Your task to perform on an android device: turn on location history Image 0: 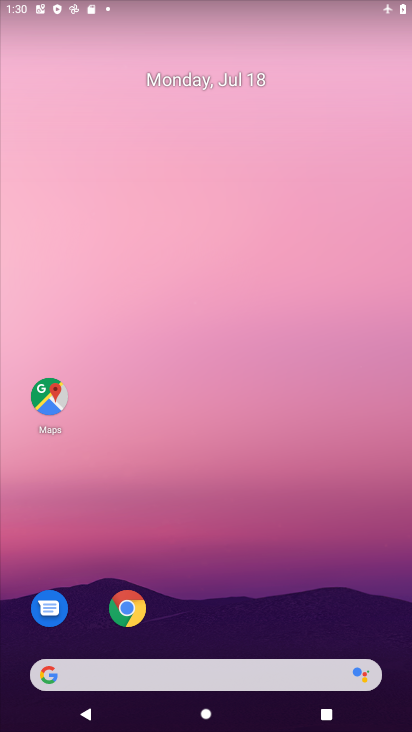
Step 0: drag from (347, 592) to (192, 47)
Your task to perform on an android device: turn on location history Image 1: 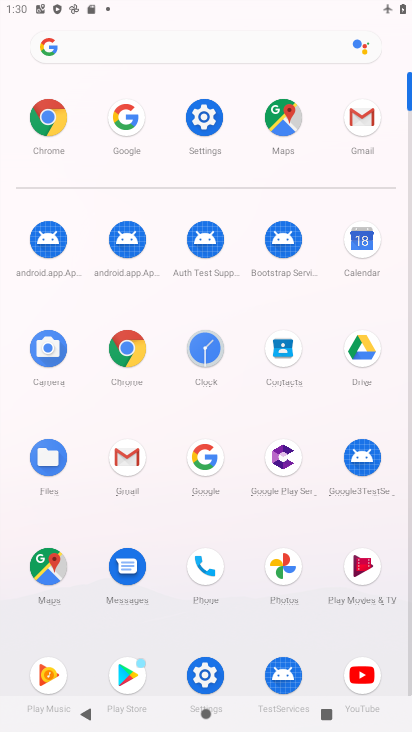
Step 1: click (216, 665)
Your task to perform on an android device: turn on location history Image 2: 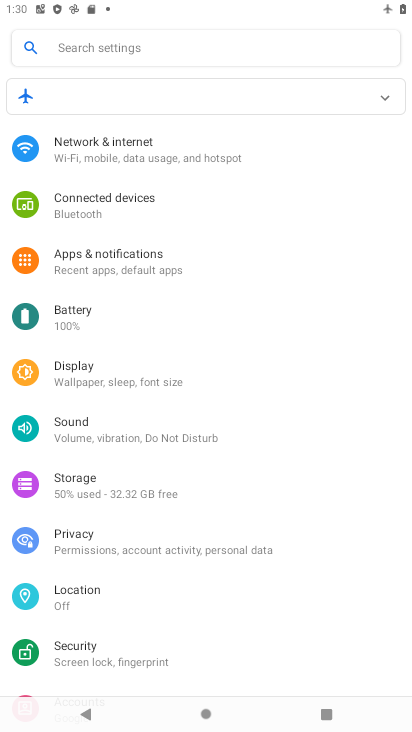
Step 2: click (103, 585)
Your task to perform on an android device: turn on location history Image 3: 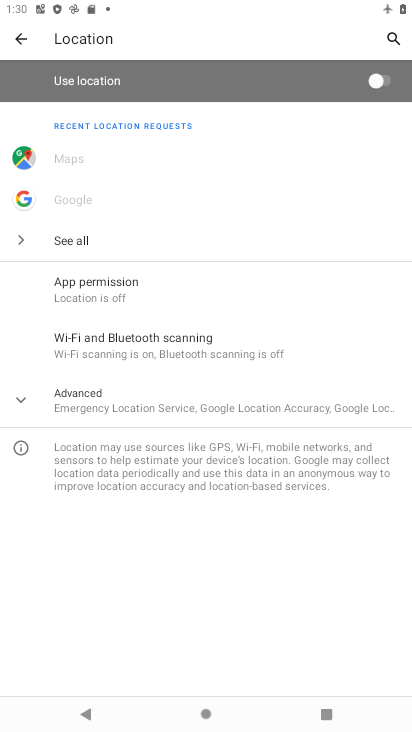
Step 3: click (170, 402)
Your task to perform on an android device: turn on location history Image 4: 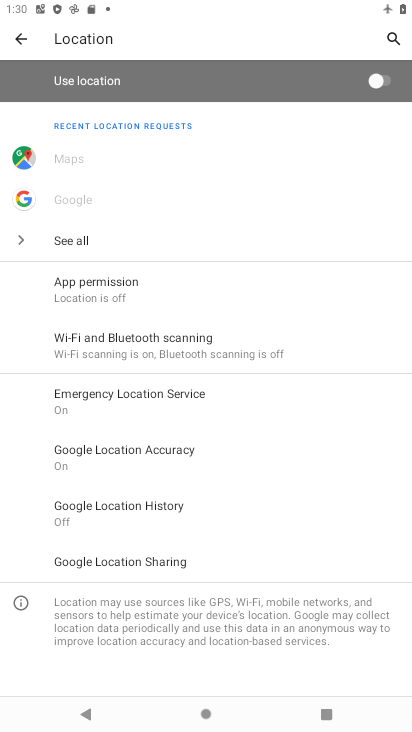
Step 4: click (199, 514)
Your task to perform on an android device: turn on location history Image 5: 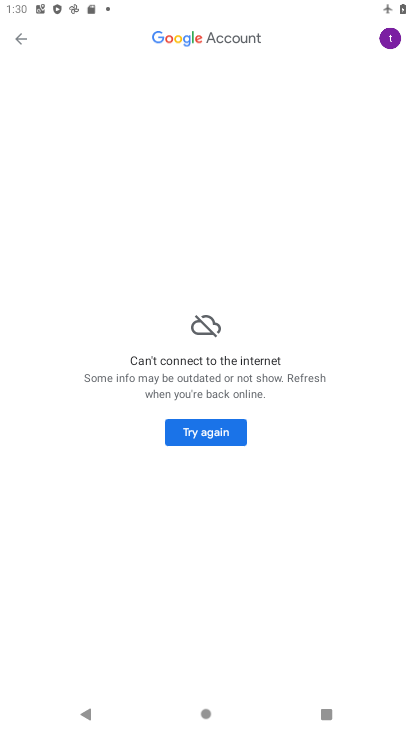
Step 5: task complete